Your task to perform on an android device: see sites visited before in the chrome app Image 0: 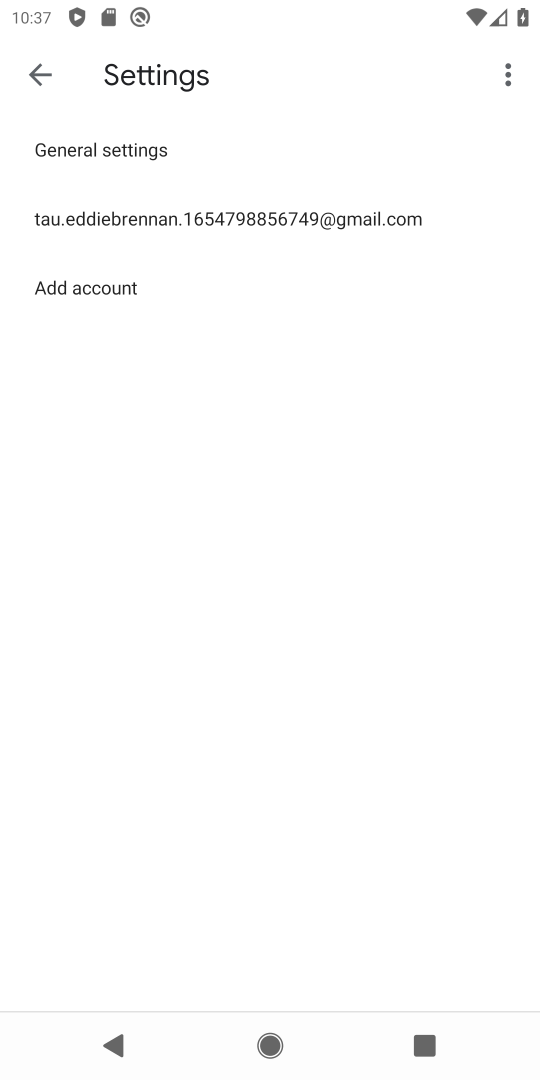
Step 0: press home button
Your task to perform on an android device: see sites visited before in the chrome app Image 1: 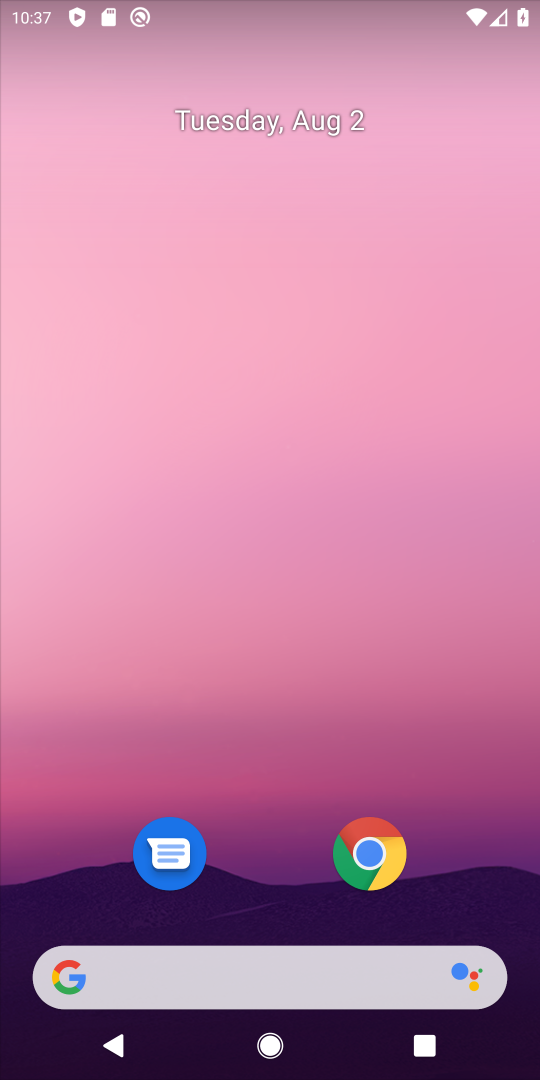
Step 1: click (380, 860)
Your task to perform on an android device: see sites visited before in the chrome app Image 2: 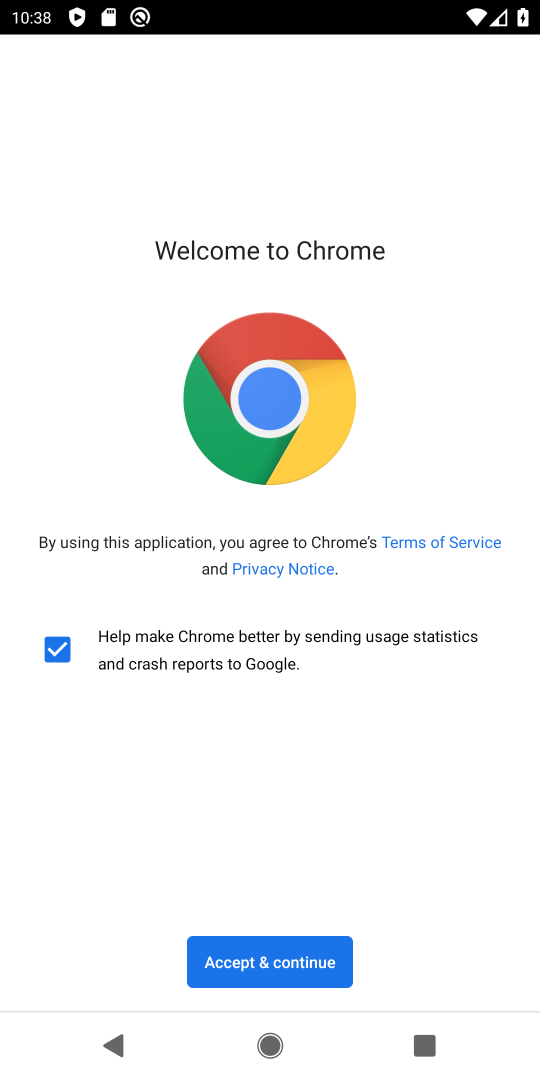
Step 2: click (326, 948)
Your task to perform on an android device: see sites visited before in the chrome app Image 3: 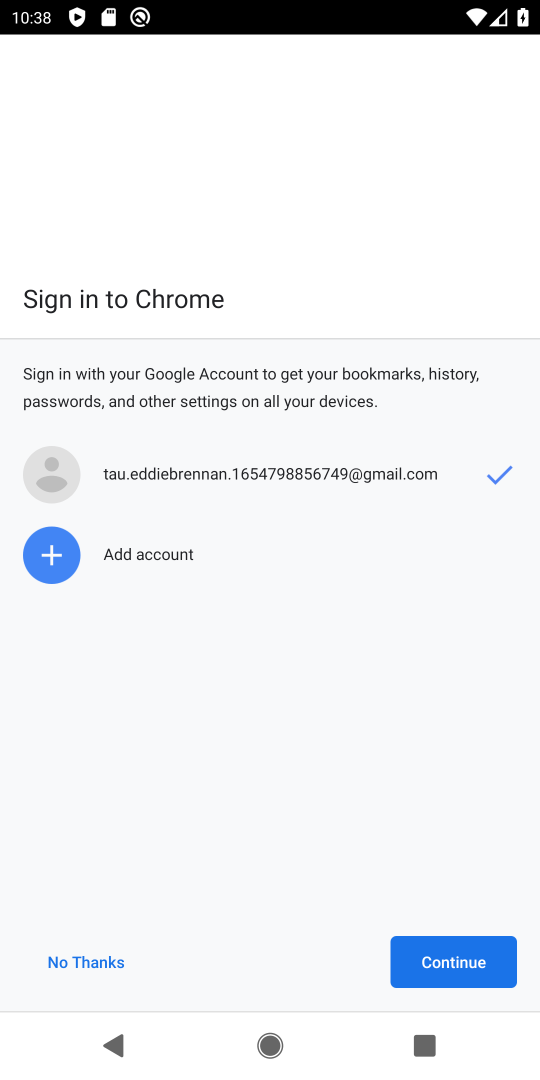
Step 3: click (417, 952)
Your task to perform on an android device: see sites visited before in the chrome app Image 4: 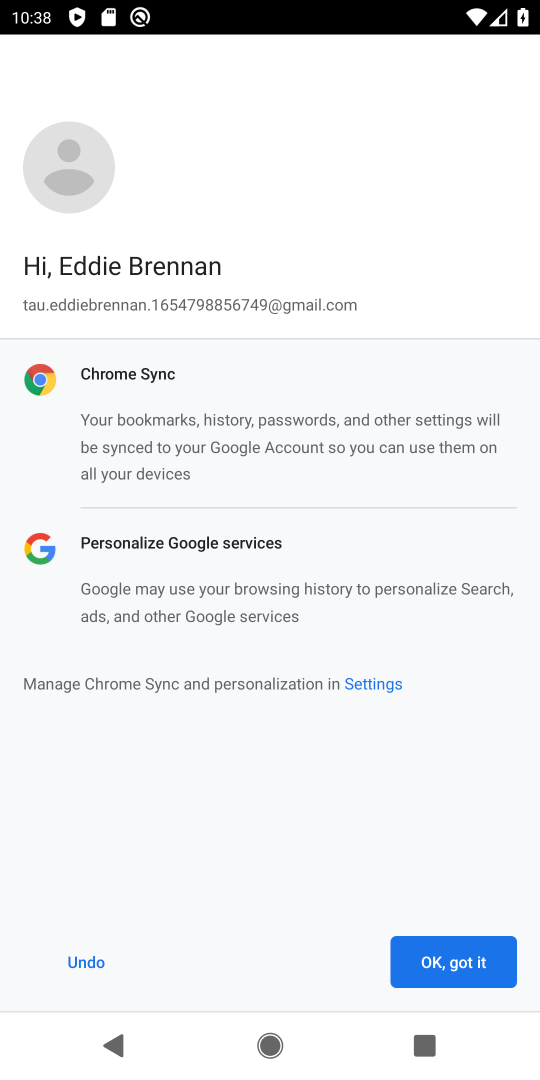
Step 4: click (417, 952)
Your task to perform on an android device: see sites visited before in the chrome app Image 5: 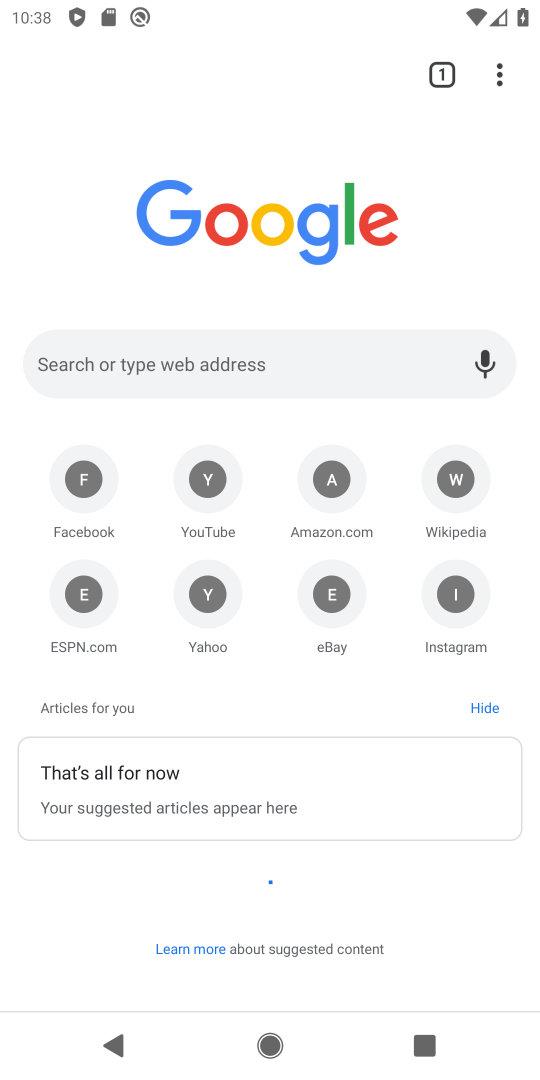
Step 5: click (499, 69)
Your task to perform on an android device: see sites visited before in the chrome app Image 6: 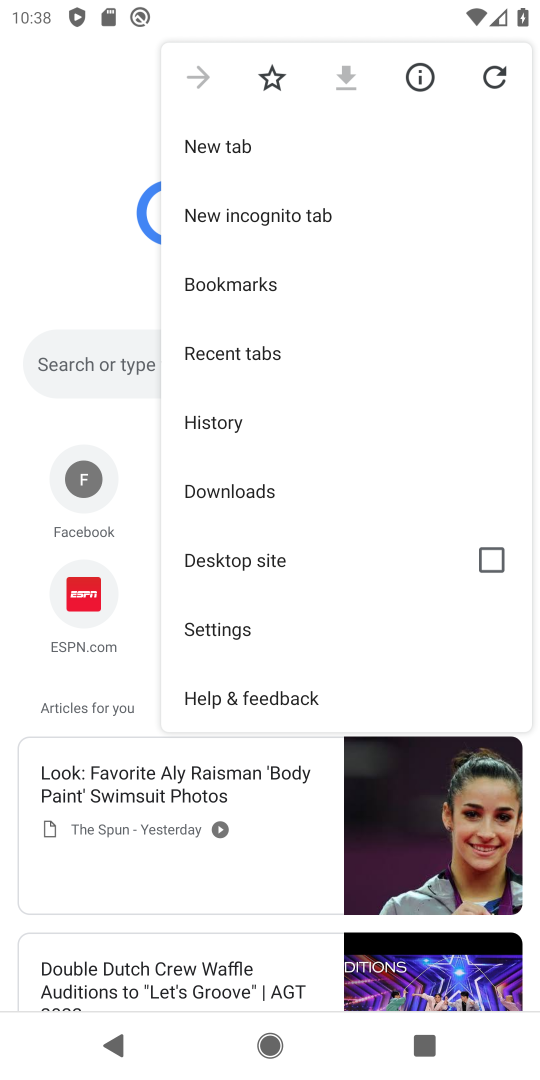
Step 6: click (251, 422)
Your task to perform on an android device: see sites visited before in the chrome app Image 7: 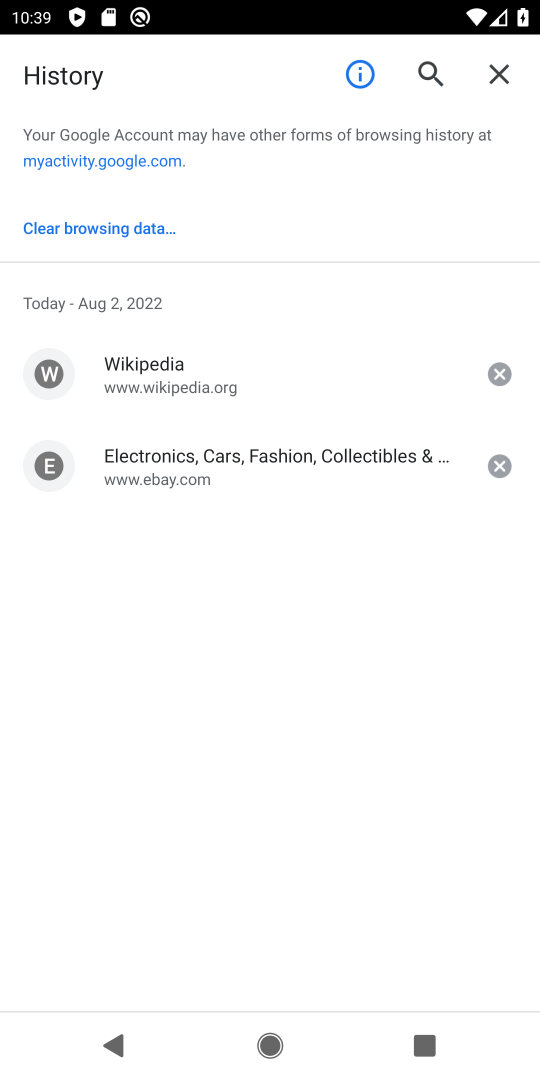
Step 7: task complete